Your task to perform on an android device: Search for a new foundation (skincare) product Image 0: 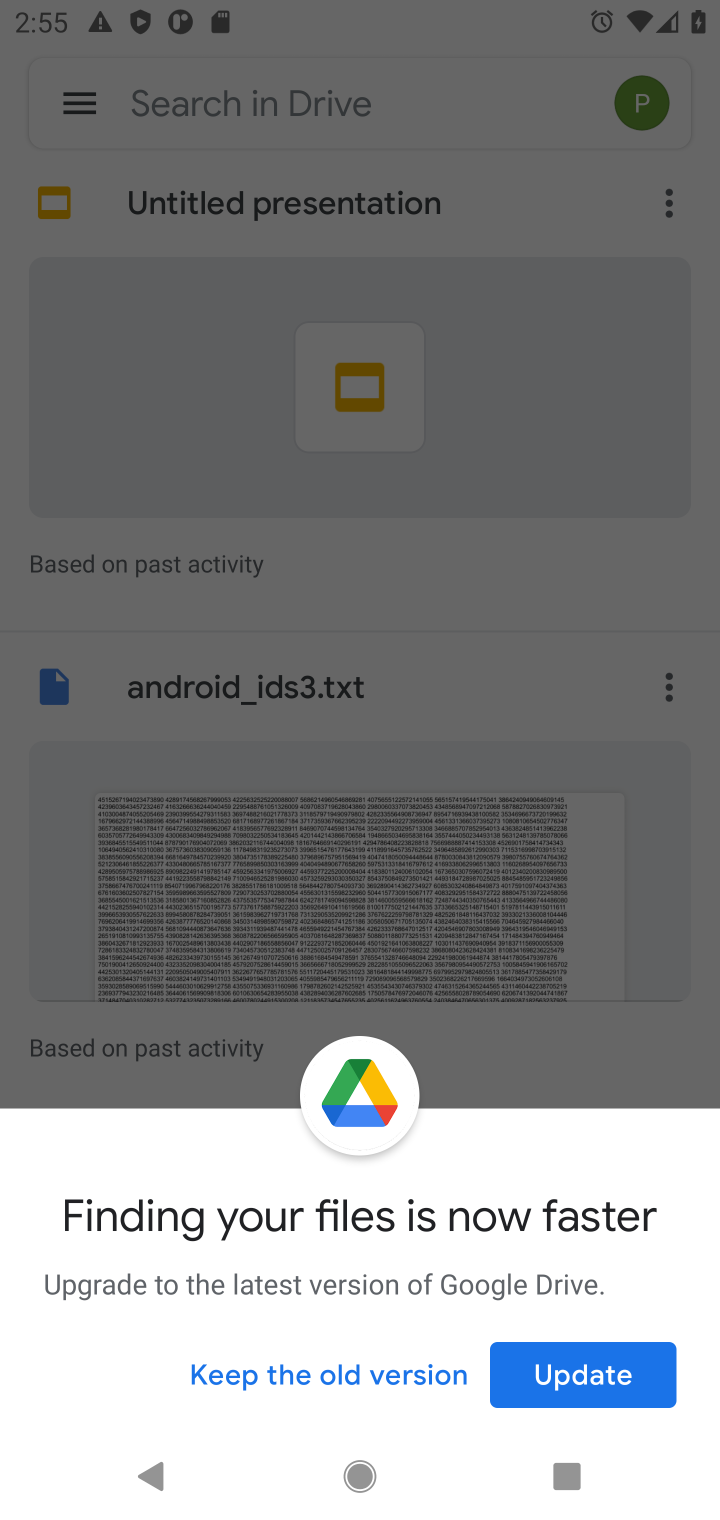
Step 0: press home button
Your task to perform on an android device: Search for a new foundation (skincare) product Image 1: 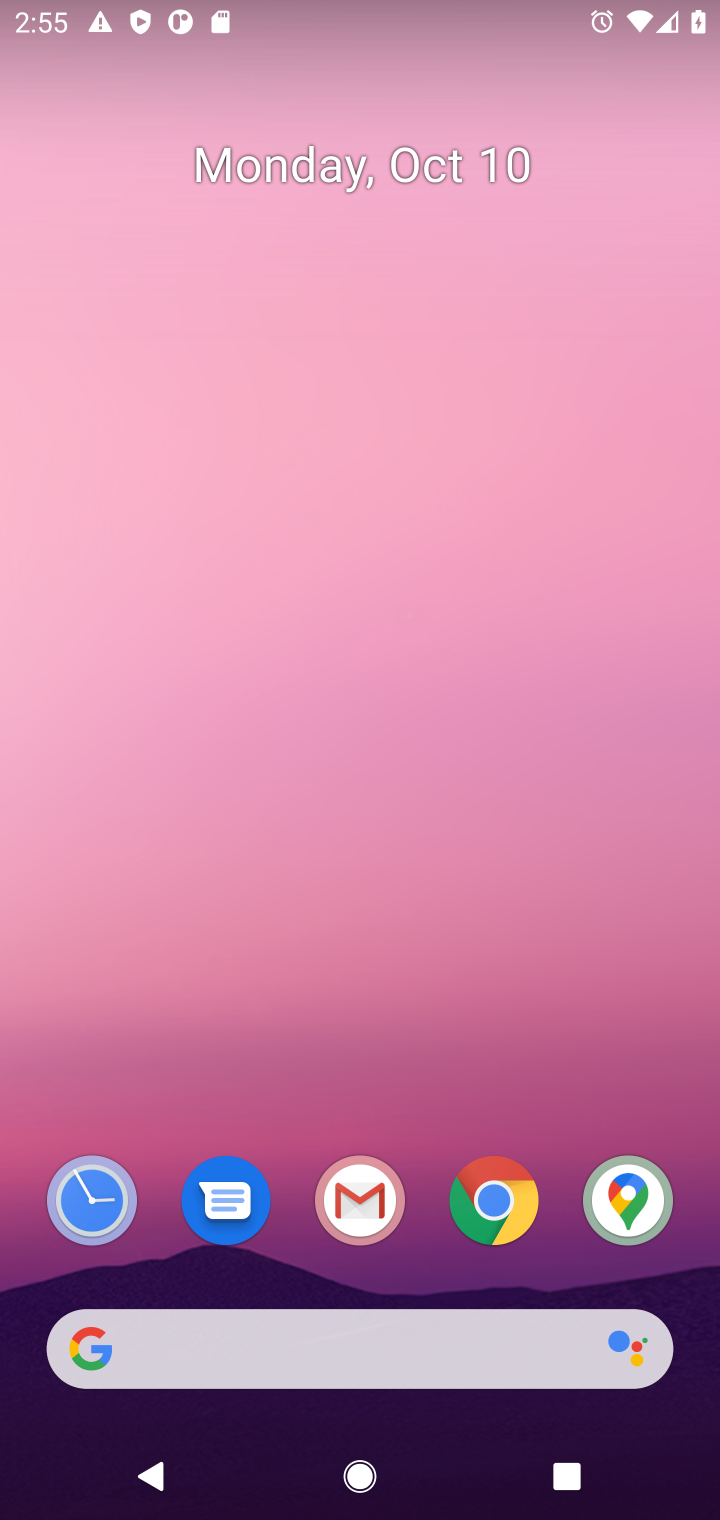
Step 1: click (499, 1199)
Your task to perform on an android device: Search for a new foundation (skincare) product Image 2: 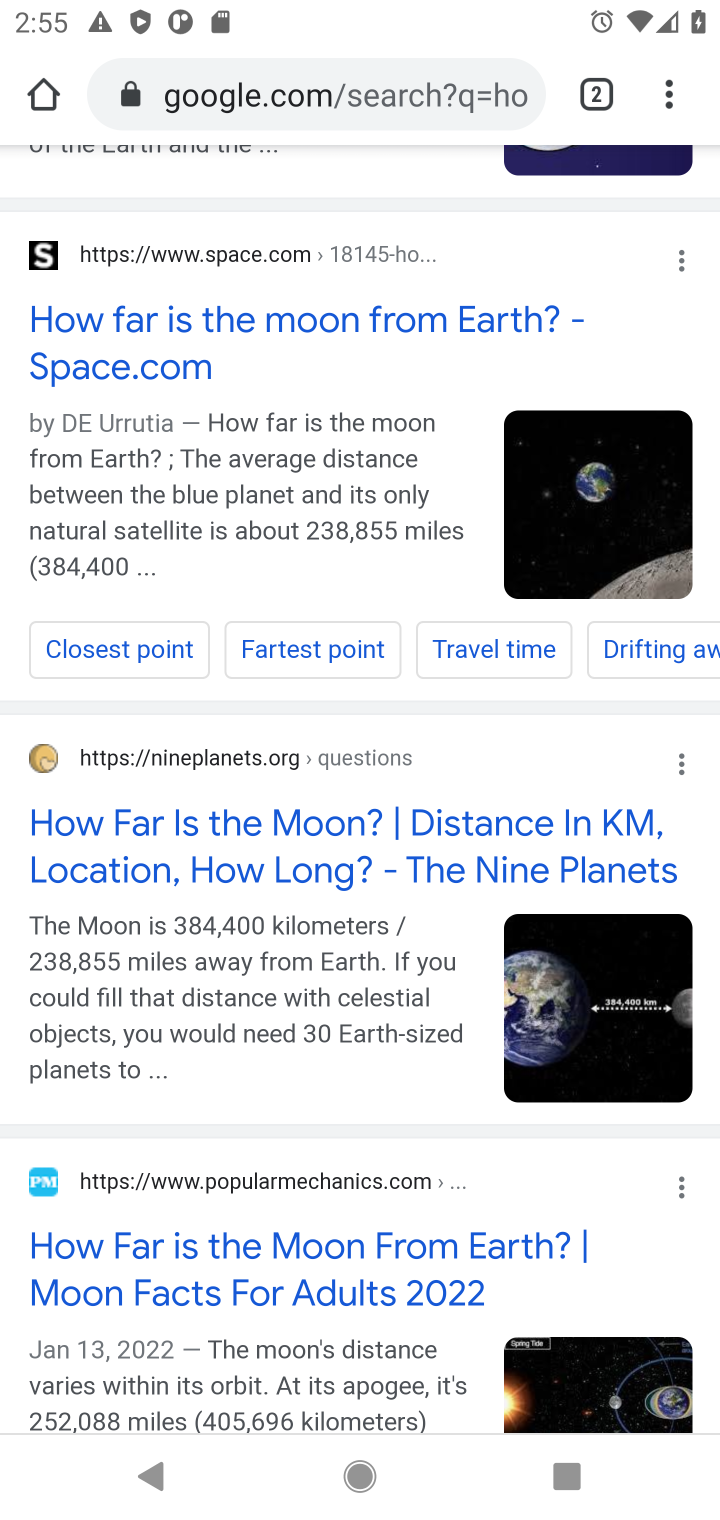
Step 2: click (322, 101)
Your task to perform on an android device: Search for a new foundation (skincare) product Image 3: 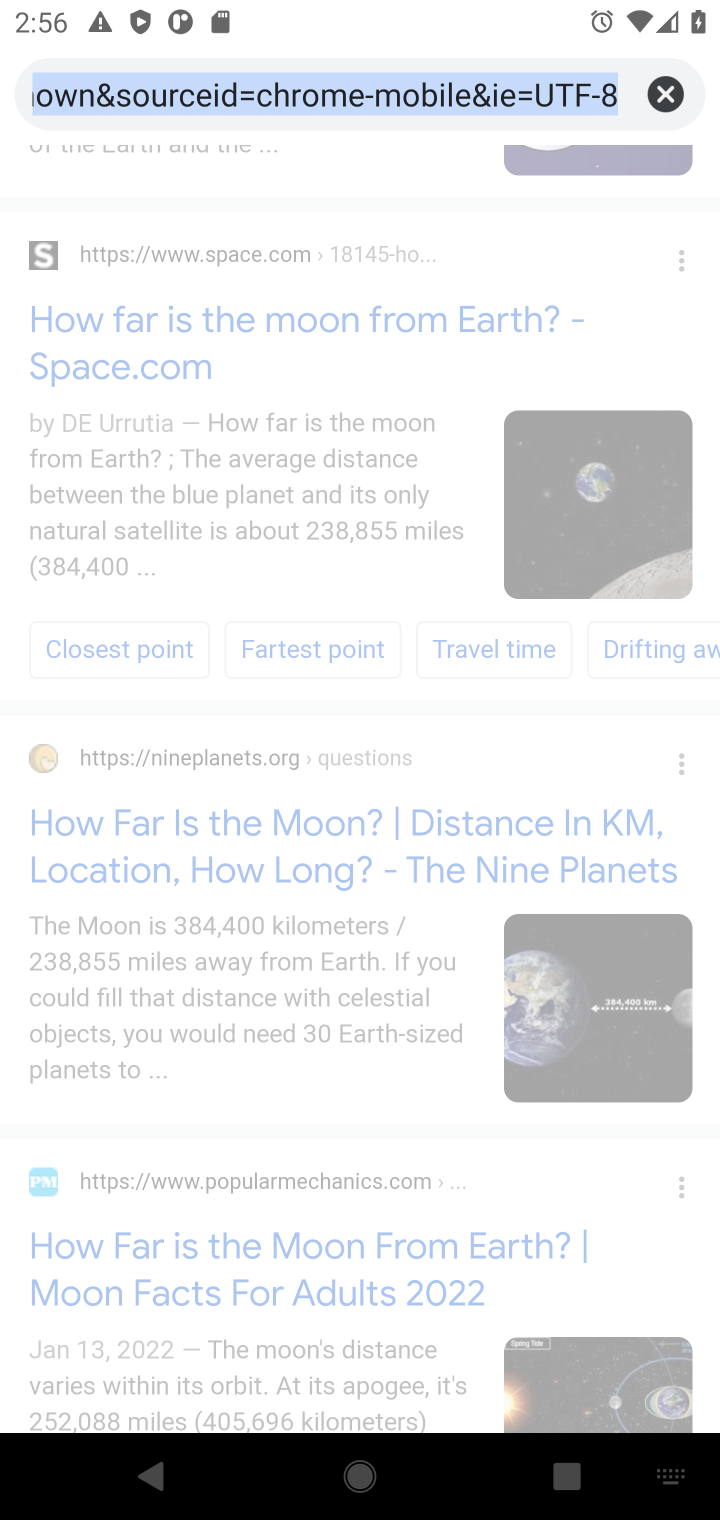
Step 3: type "new foundation (skincare) product"
Your task to perform on an android device: Search for a new foundation (skincare) product Image 4: 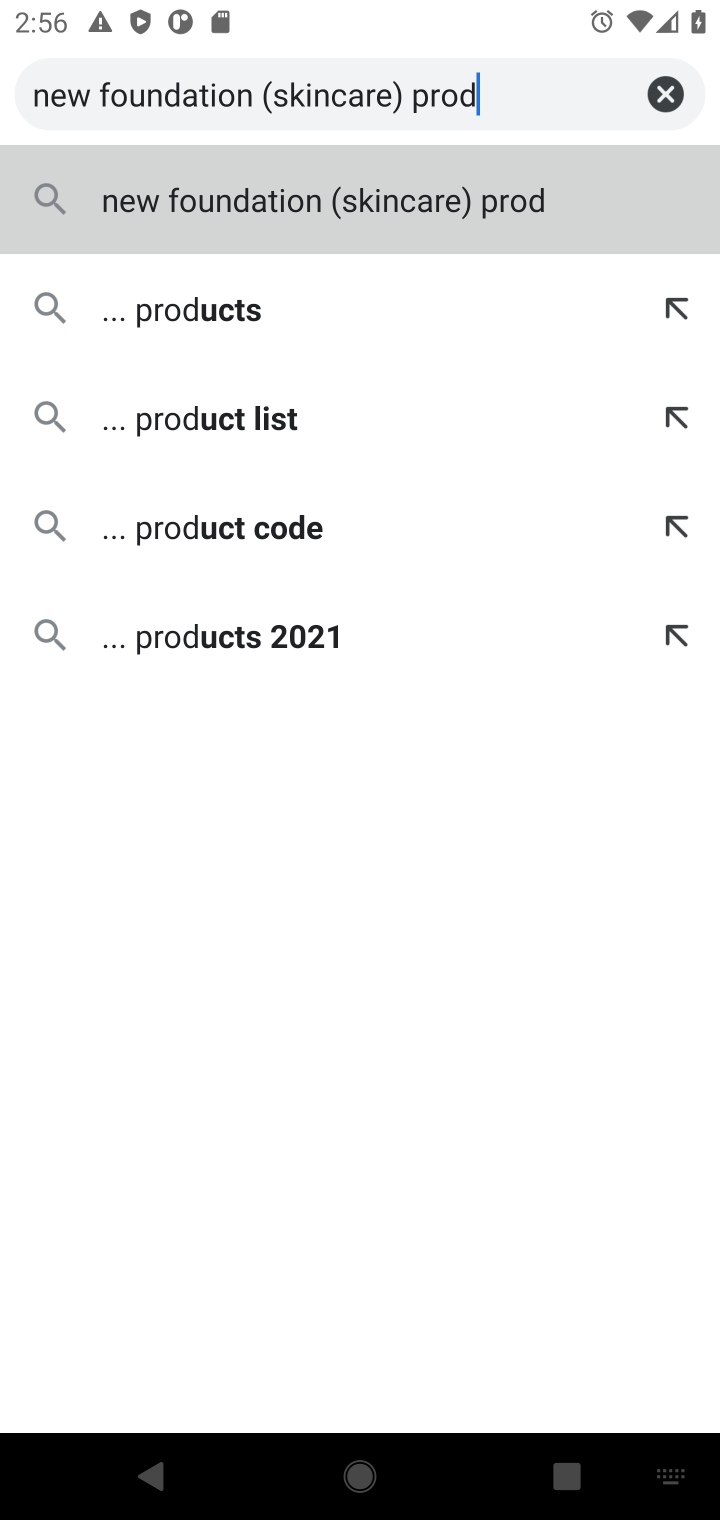
Step 4: click (450, 210)
Your task to perform on an android device: Search for a new foundation (skincare) product Image 5: 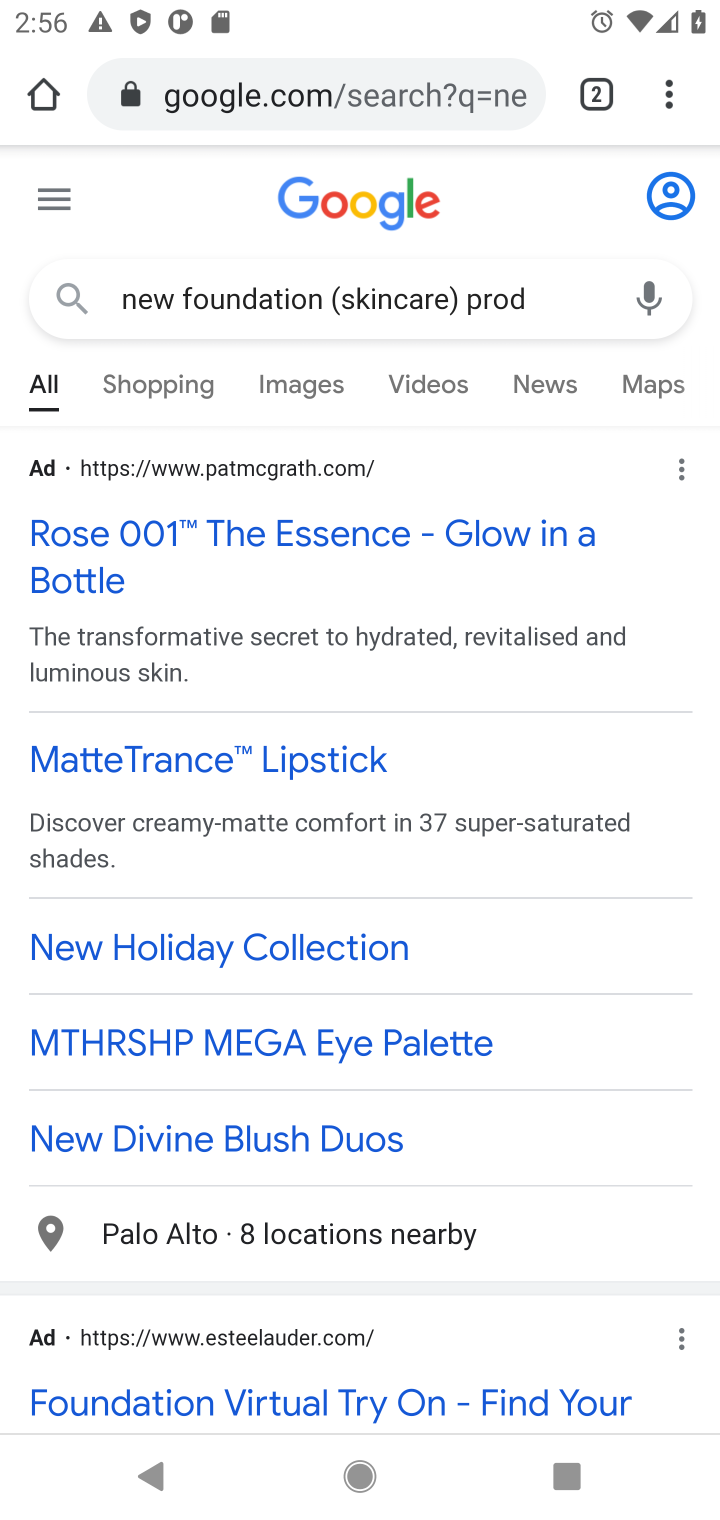
Step 5: task complete